Your task to perform on an android device: Go to privacy settings Image 0: 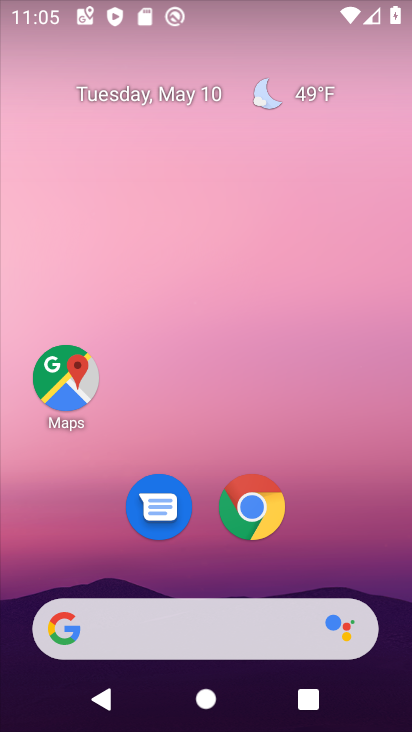
Step 0: drag from (220, 559) to (200, 71)
Your task to perform on an android device: Go to privacy settings Image 1: 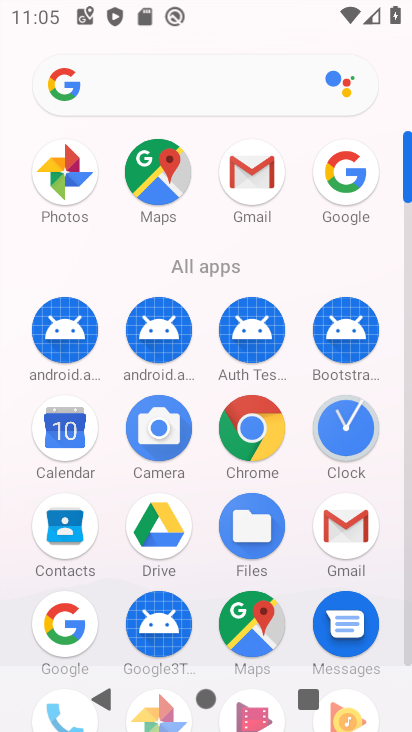
Step 1: drag from (302, 550) to (287, 72)
Your task to perform on an android device: Go to privacy settings Image 2: 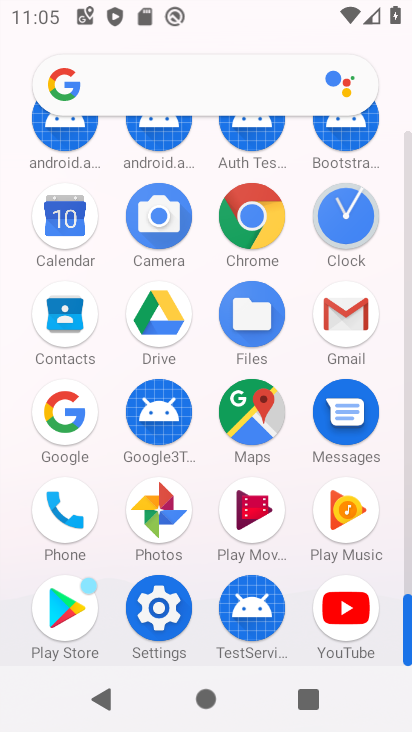
Step 2: click (156, 618)
Your task to perform on an android device: Go to privacy settings Image 3: 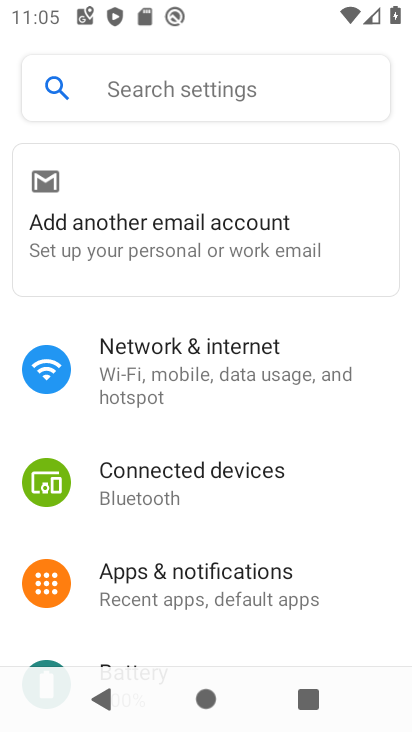
Step 3: drag from (234, 578) to (235, 42)
Your task to perform on an android device: Go to privacy settings Image 4: 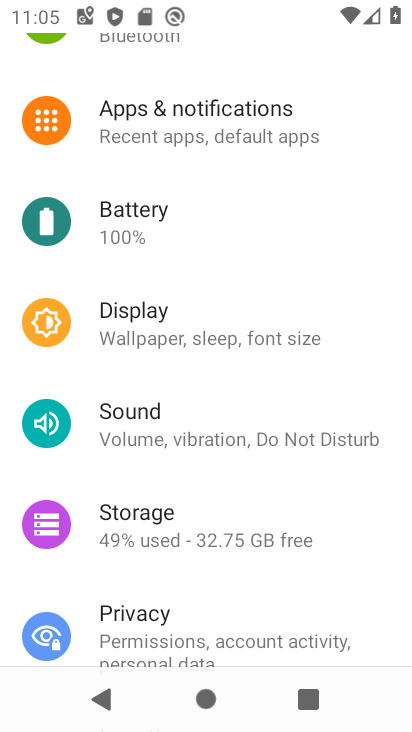
Step 4: click (139, 625)
Your task to perform on an android device: Go to privacy settings Image 5: 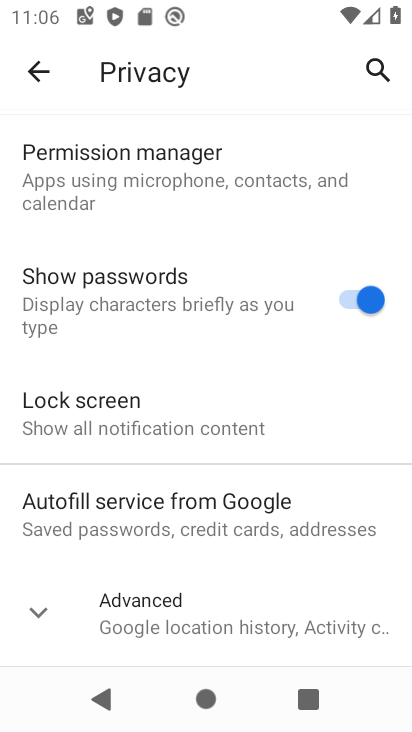
Step 5: task complete